Your task to perform on an android device: Show me popular games on the Play Store Image 0: 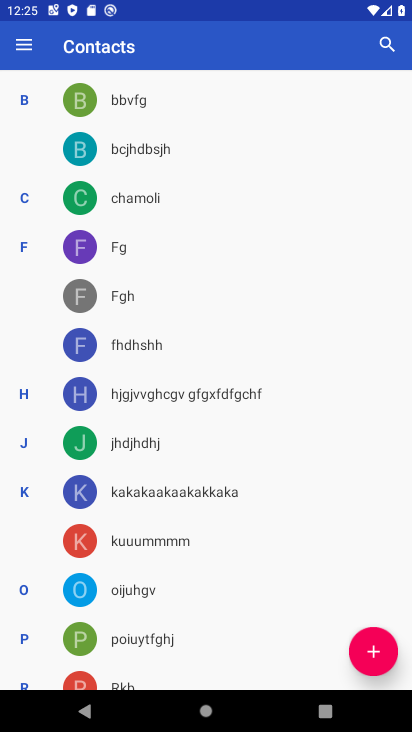
Step 0: press home button
Your task to perform on an android device: Show me popular games on the Play Store Image 1: 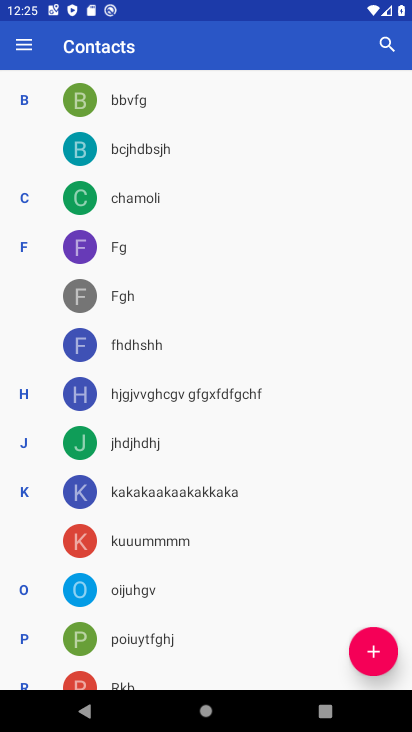
Step 1: press home button
Your task to perform on an android device: Show me popular games on the Play Store Image 2: 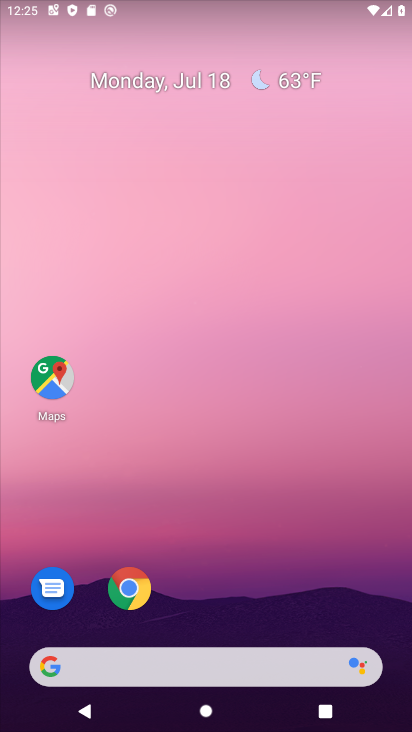
Step 2: drag from (242, 684) to (214, 181)
Your task to perform on an android device: Show me popular games on the Play Store Image 3: 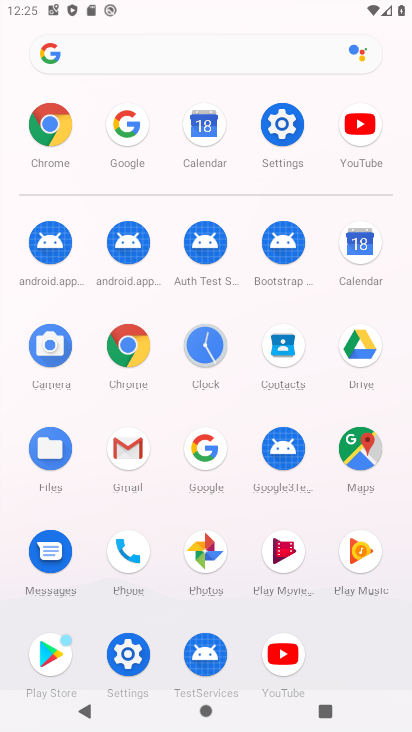
Step 3: click (57, 650)
Your task to perform on an android device: Show me popular games on the Play Store Image 4: 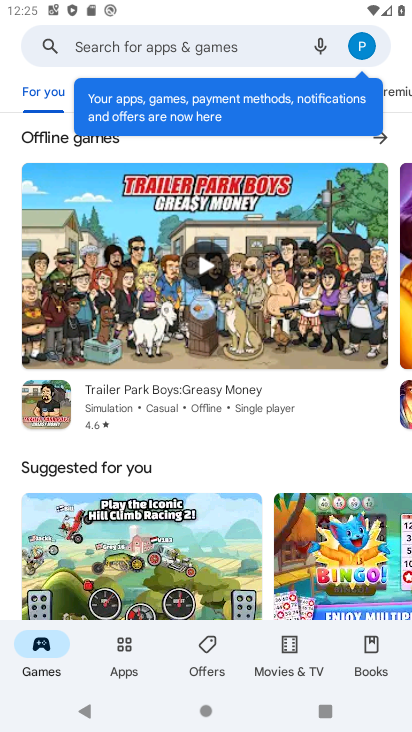
Step 4: drag from (271, 608) to (267, 225)
Your task to perform on an android device: Show me popular games on the Play Store Image 5: 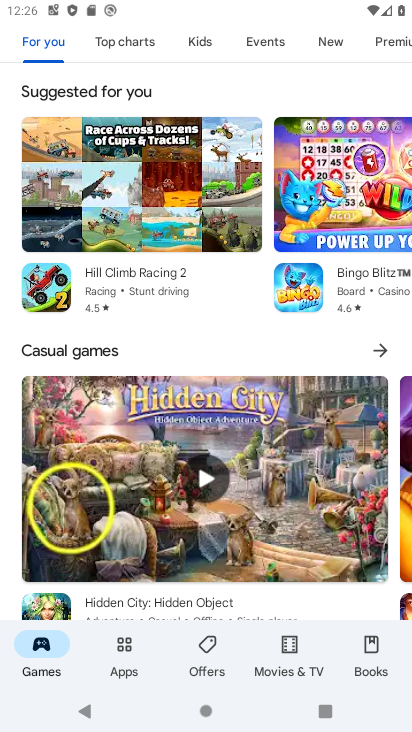
Step 5: drag from (200, 592) to (187, 151)
Your task to perform on an android device: Show me popular games on the Play Store Image 6: 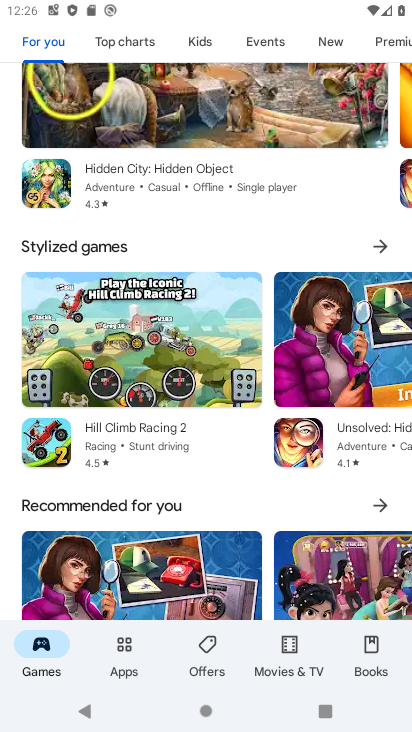
Step 6: drag from (188, 548) to (182, 130)
Your task to perform on an android device: Show me popular games on the Play Store Image 7: 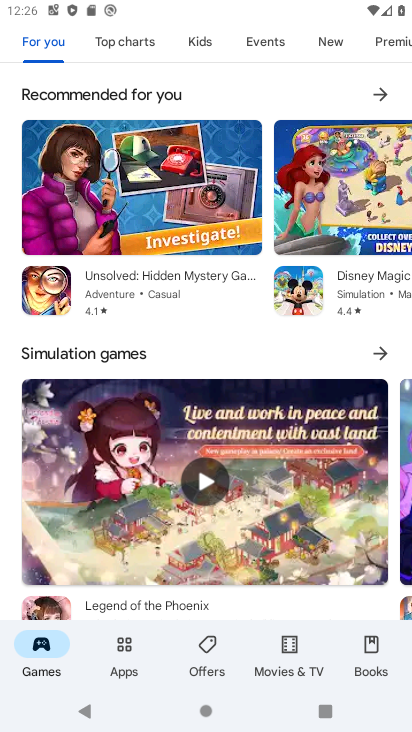
Step 7: drag from (209, 540) to (218, 102)
Your task to perform on an android device: Show me popular games on the Play Store Image 8: 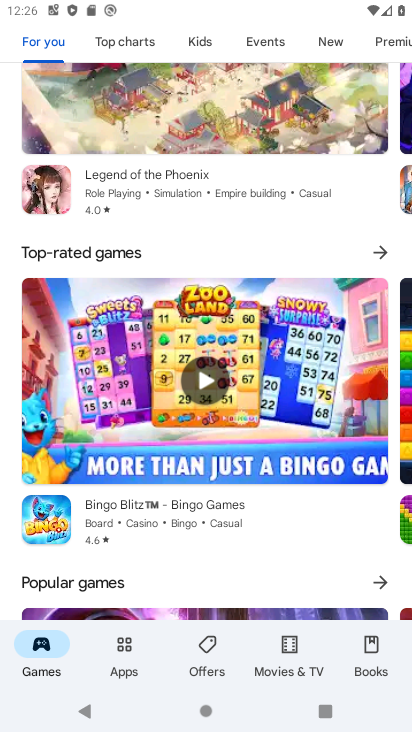
Step 8: drag from (223, 568) to (227, 314)
Your task to perform on an android device: Show me popular games on the Play Store Image 9: 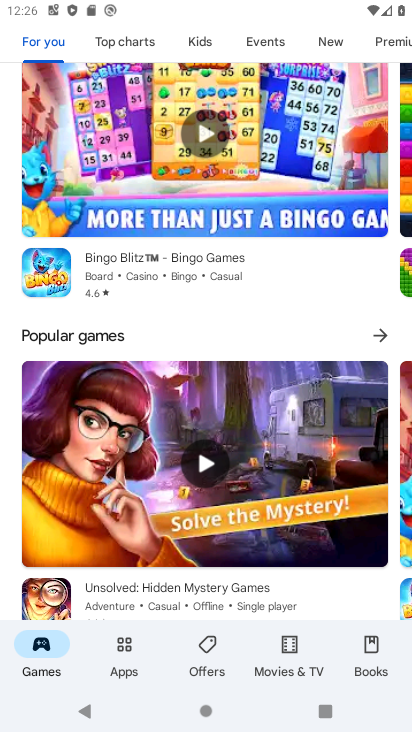
Step 9: click (377, 332)
Your task to perform on an android device: Show me popular games on the Play Store Image 10: 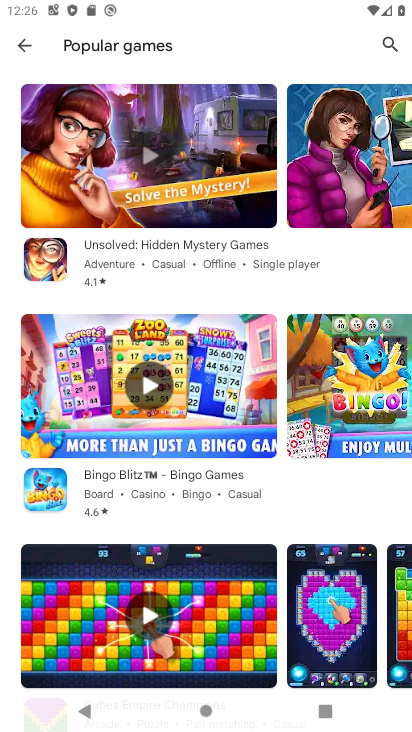
Step 10: task complete